Your task to perform on an android device: turn on data saver in the chrome app Image 0: 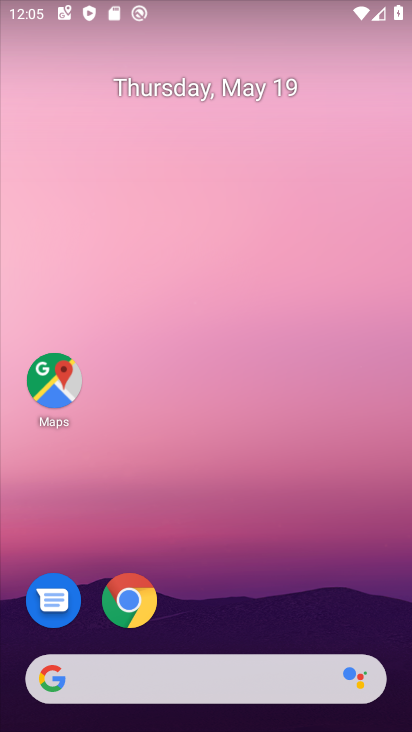
Step 0: click (136, 614)
Your task to perform on an android device: turn on data saver in the chrome app Image 1: 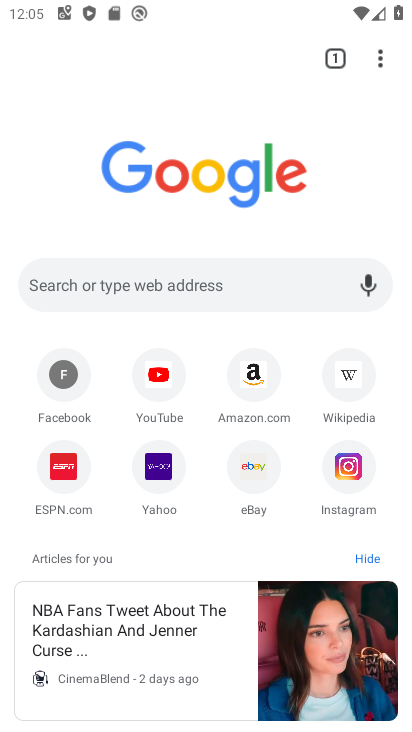
Step 1: click (388, 67)
Your task to perform on an android device: turn on data saver in the chrome app Image 2: 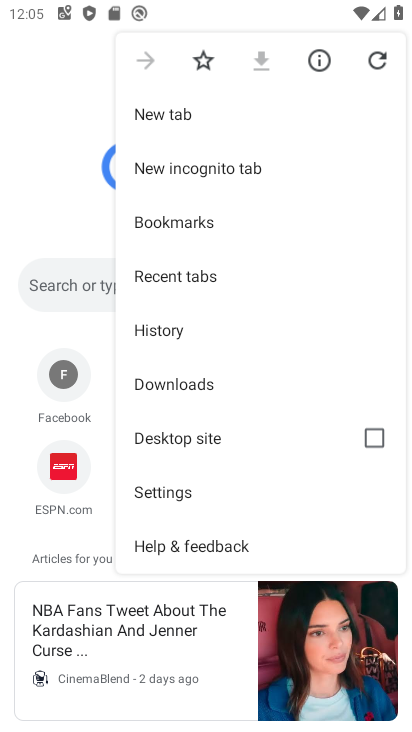
Step 2: click (231, 495)
Your task to perform on an android device: turn on data saver in the chrome app Image 3: 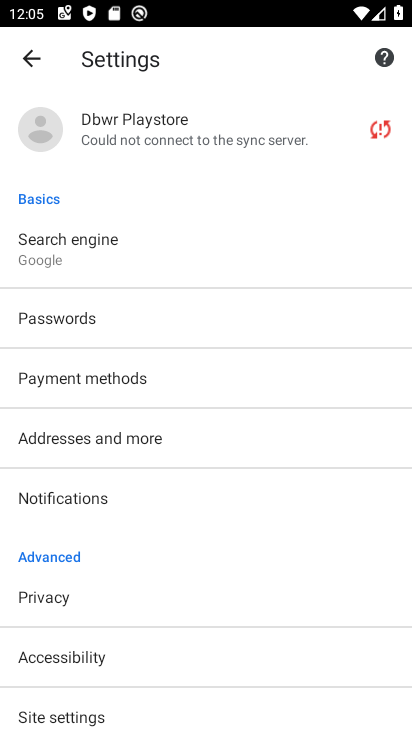
Step 3: drag from (199, 591) to (190, 154)
Your task to perform on an android device: turn on data saver in the chrome app Image 4: 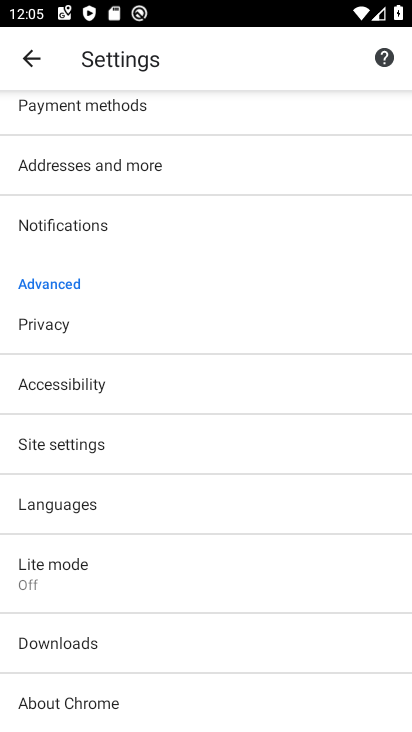
Step 4: click (123, 565)
Your task to perform on an android device: turn on data saver in the chrome app Image 5: 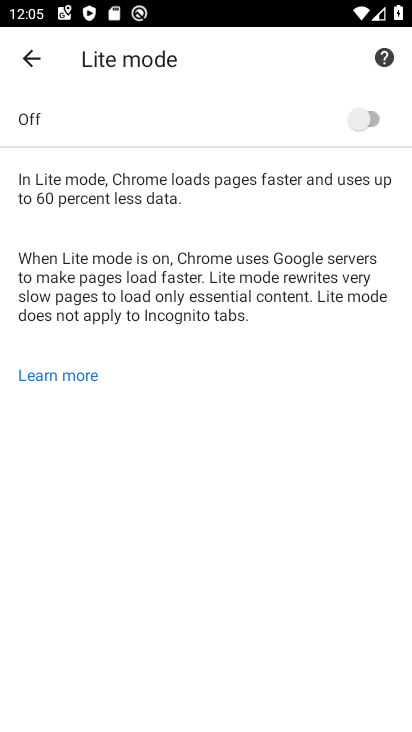
Step 5: click (347, 115)
Your task to perform on an android device: turn on data saver in the chrome app Image 6: 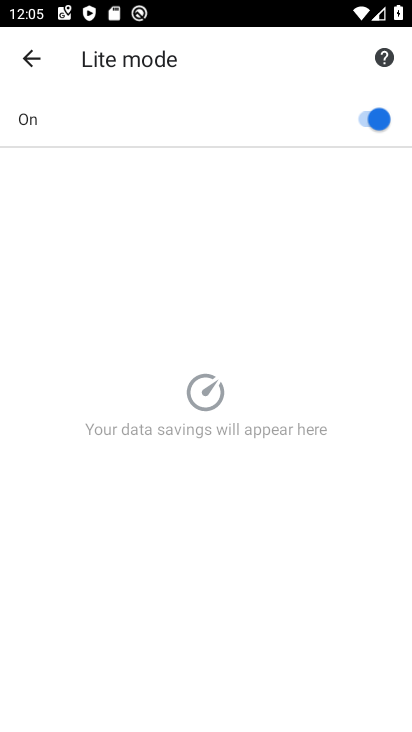
Step 6: task complete